Your task to perform on an android device: open a bookmark in the chrome app Image 0: 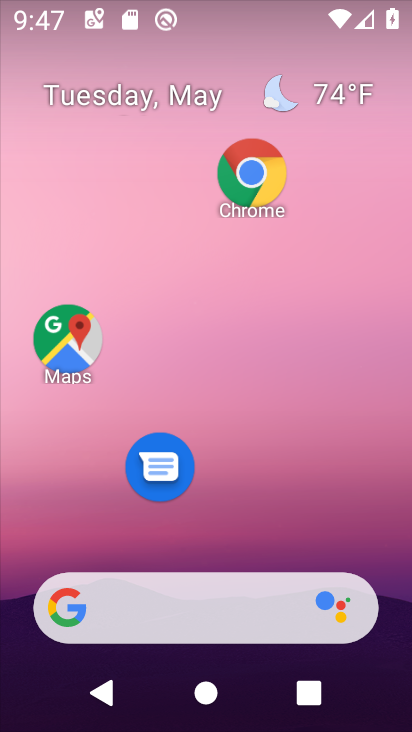
Step 0: drag from (324, 512) to (352, 125)
Your task to perform on an android device: open a bookmark in the chrome app Image 1: 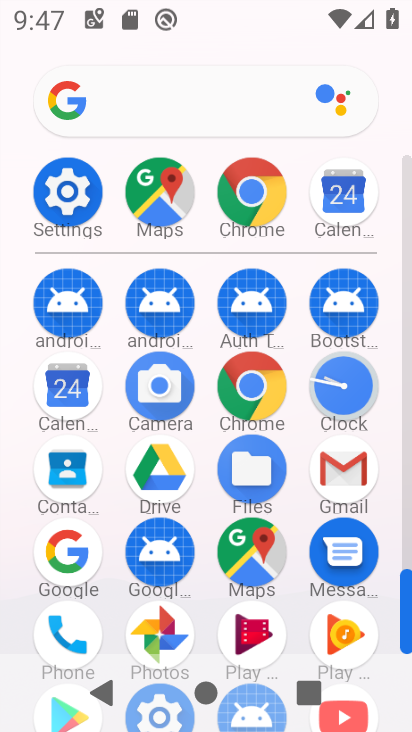
Step 1: click (257, 217)
Your task to perform on an android device: open a bookmark in the chrome app Image 2: 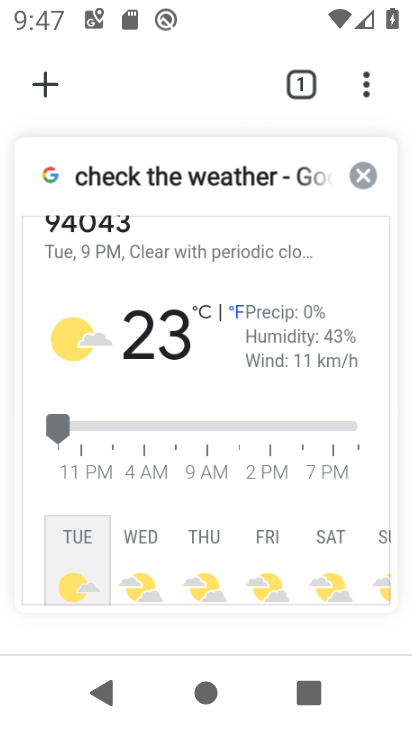
Step 2: drag from (352, 103) to (10, 398)
Your task to perform on an android device: open a bookmark in the chrome app Image 3: 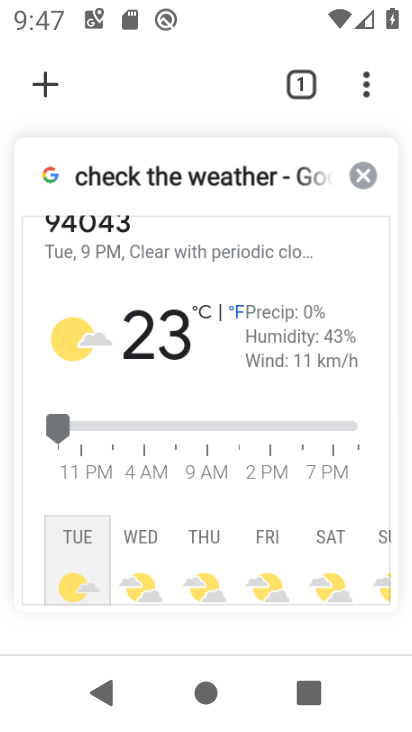
Step 3: click (238, 183)
Your task to perform on an android device: open a bookmark in the chrome app Image 4: 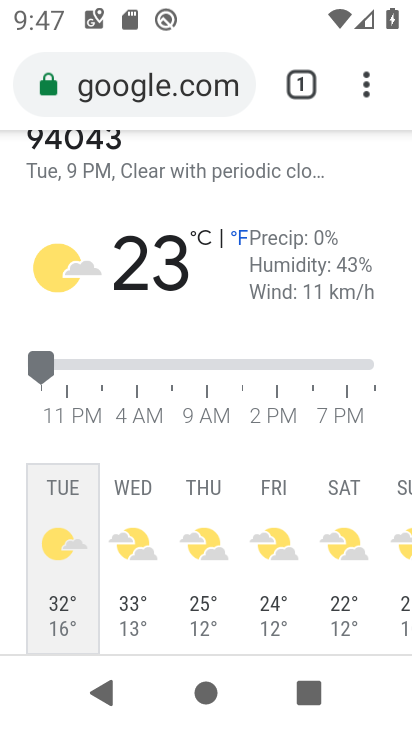
Step 4: click (371, 89)
Your task to perform on an android device: open a bookmark in the chrome app Image 5: 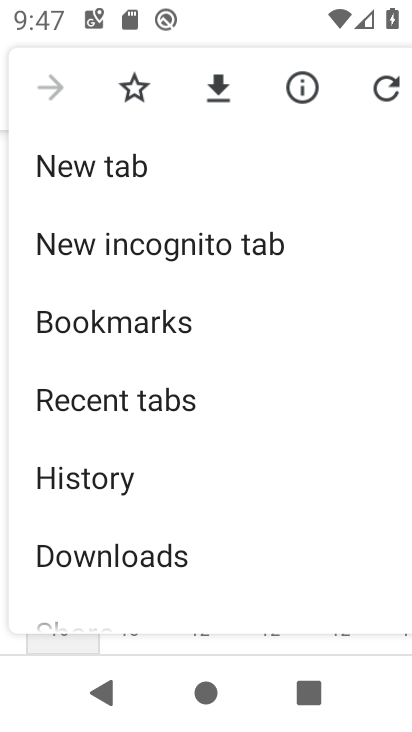
Step 5: click (110, 358)
Your task to perform on an android device: open a bookmark in the chrome app Image 6: 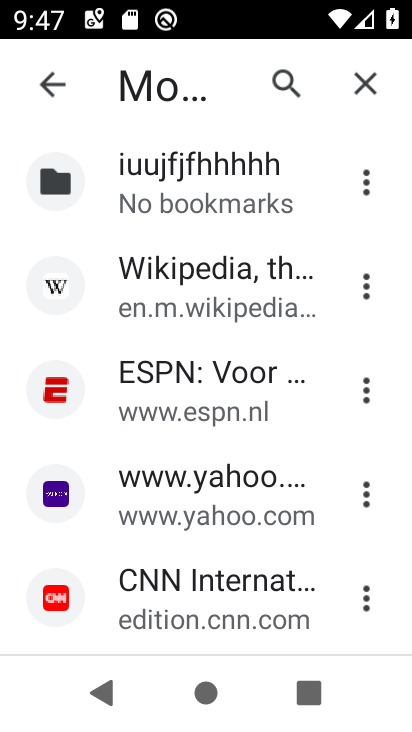
Step 6: task complete